Your task to perform on an android device: turn vacation reply on in the gmail app Image 0: 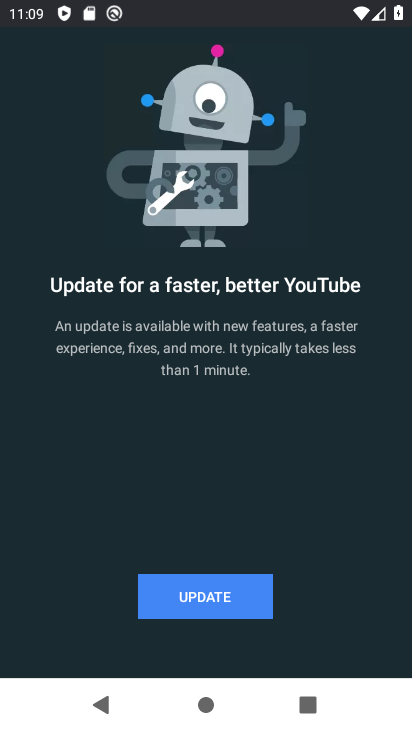
Step 0: click (201, 597)
Your task to perform on an android device: turn vacation reply on in the gmail app Image 1: 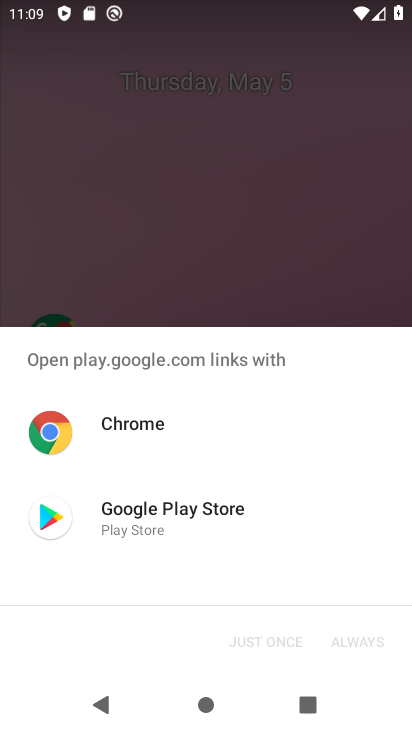
Step 1: press home button
Your task to perform on an android device: turn vacation reply on in the gmail app Image 2: 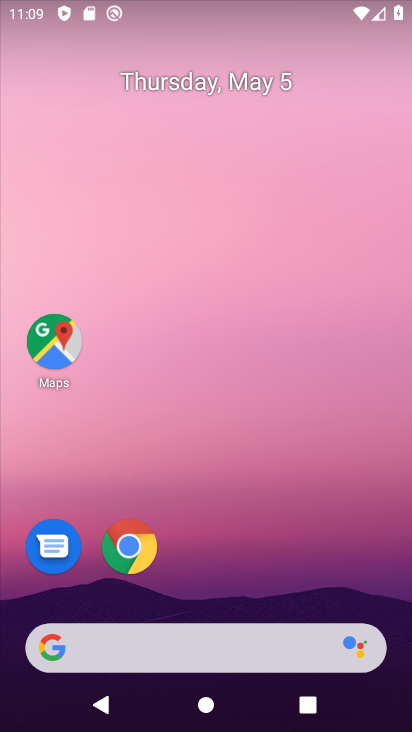
Step 2: drag from (223, 600) to (109, 10)
Your task to perform on an android device: turn vacation reply on in the gmail app Image 3: 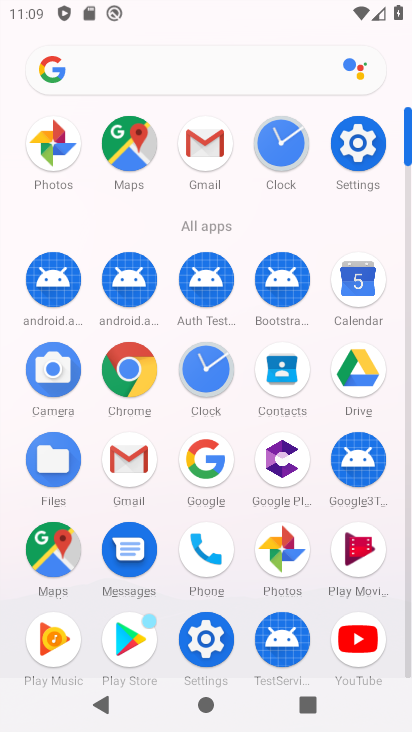
Step 3: click (121, 451)
Your task to perform on an android device: turn vacation reply on in the gmail app Image 4: 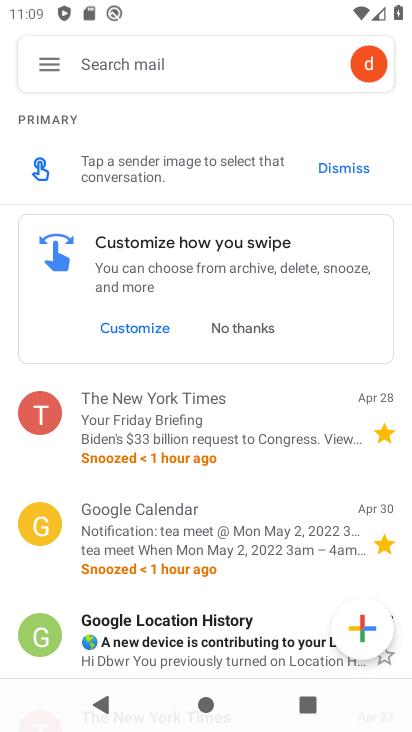
Step 4: click (43, 56)
Your task to perform on an android device: turn vacation reply on in the gmail app Image 5: 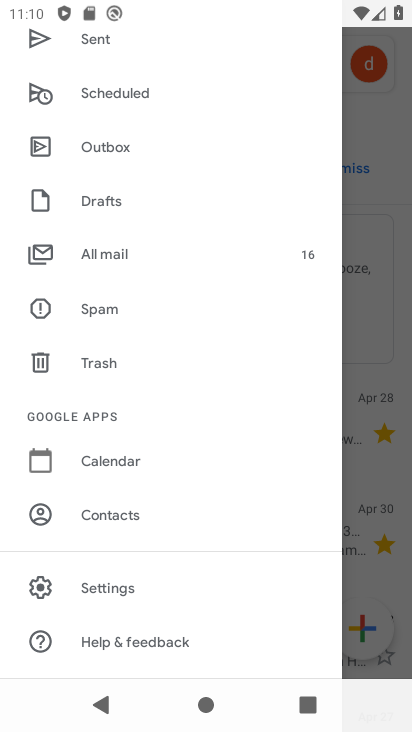
Step 5: click (87, 590)
Your task to perform on an android device: turn vacation reply on in the gmail app Image 6: 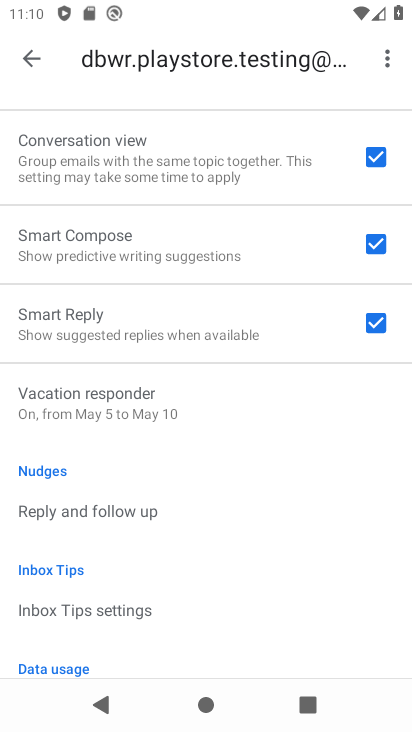
Step 6: click (113, 400)
Your task to perform on an android device: turn vacation reply on in the gmail app Image 7: 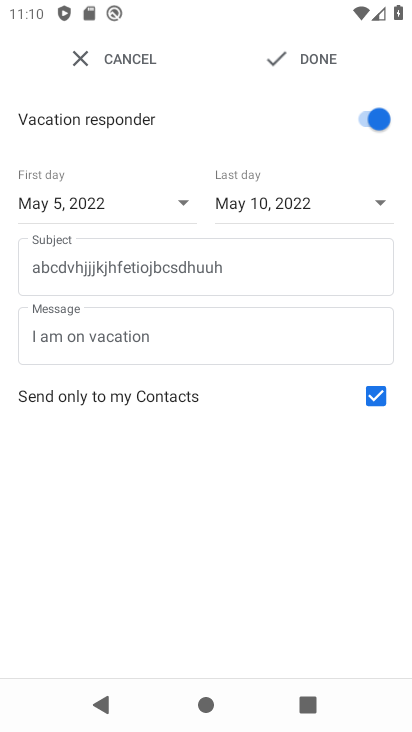
Step 7: click (332, 55)
Your task to perform on an android device: turn vacation reply on in the gmail app Image 8: 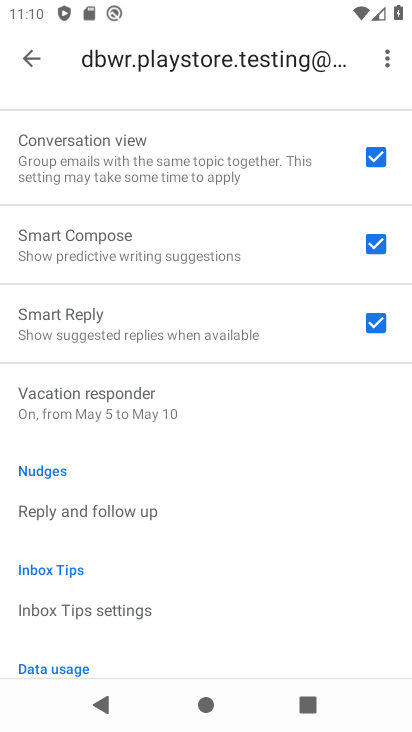
Step 8: task complete